Your task to perform on an android device: turn vacation reply on in the gmail app Image 0: 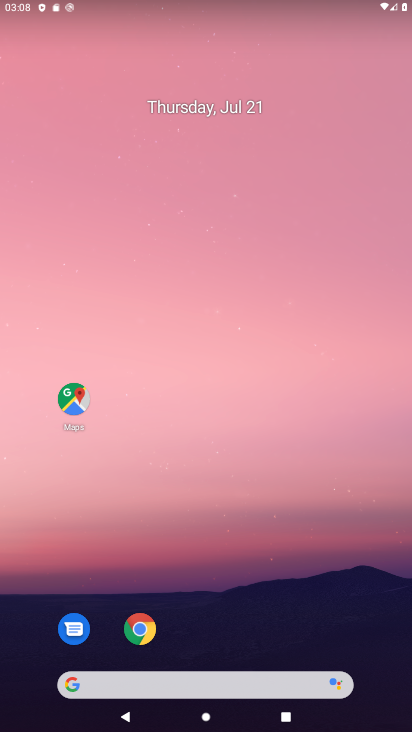
Step 0: press home button
Your task to perform on an android device: turn vacation reply on in the gmail app Image 1: 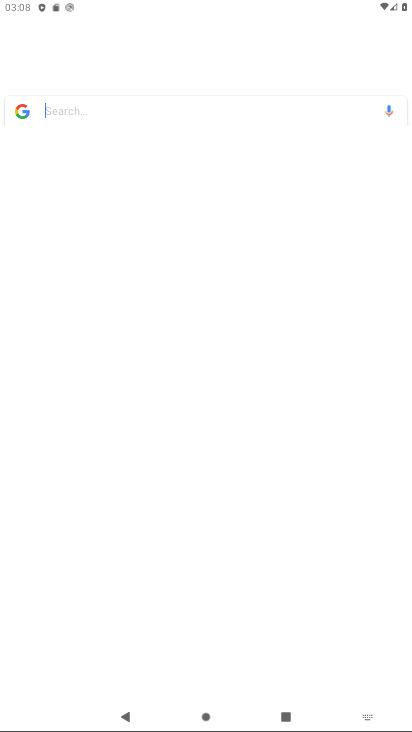
Step 1: drag from (302, 1) to (385, 43)
Your task to perform on an android device: turn vacation reply on in the gmail app Image 2: 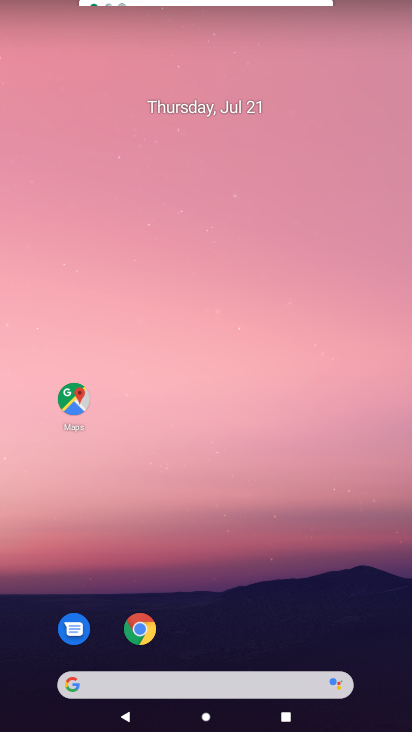
Step 2: drag from (217, 689) to (214, 74)
Your task to perform on an android device: turn vacation reply on in the gmail app Image 3: 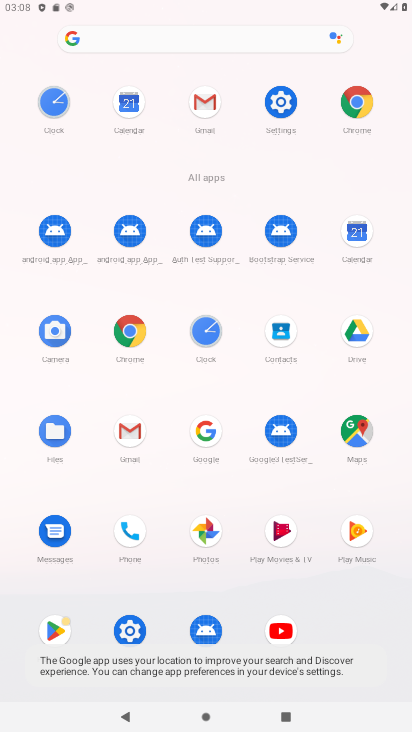
Step 3: click (131, 362)
Your task to perform on an android device: turn vacation reply on in the gmail app Image 4: 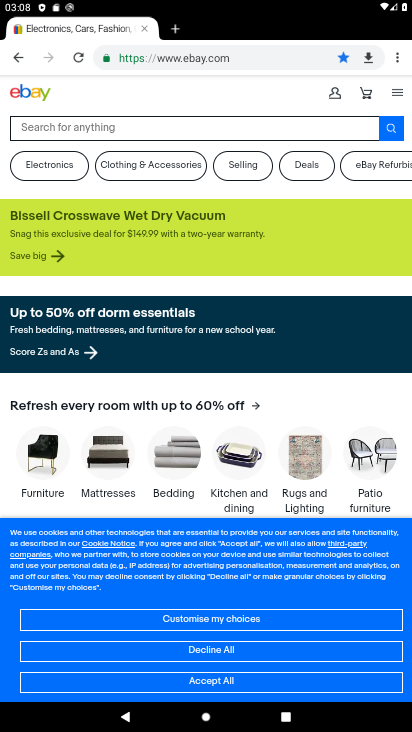
Step 4: click (400, 59)
Your task to perform on an android device: turn vacation reply on in the gmail app Image 5: 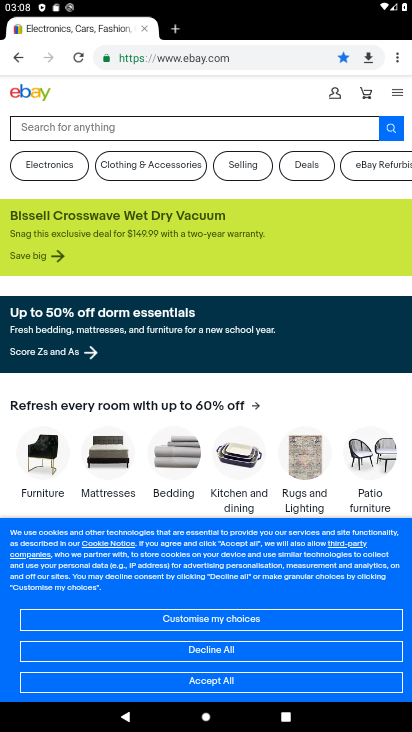
Step 5: press home button
Your task to perform on an android device: turn vacation reply on in the gmail app Image 6: 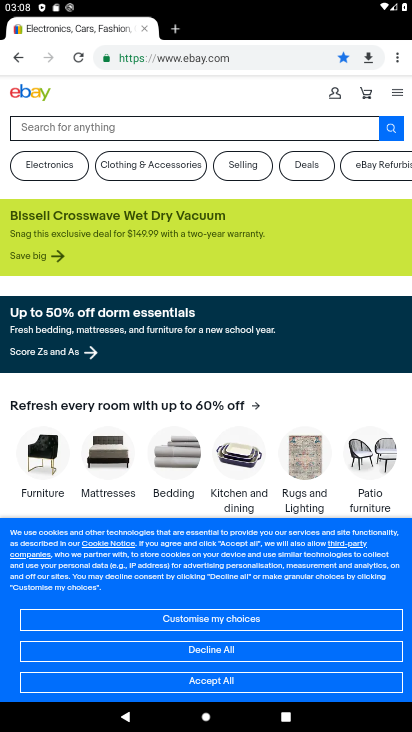
Step 6: drag from (317, 605) to (278, 30)
Your task to perform on an android device: turn vacation reply on in the gmail app Image 7: 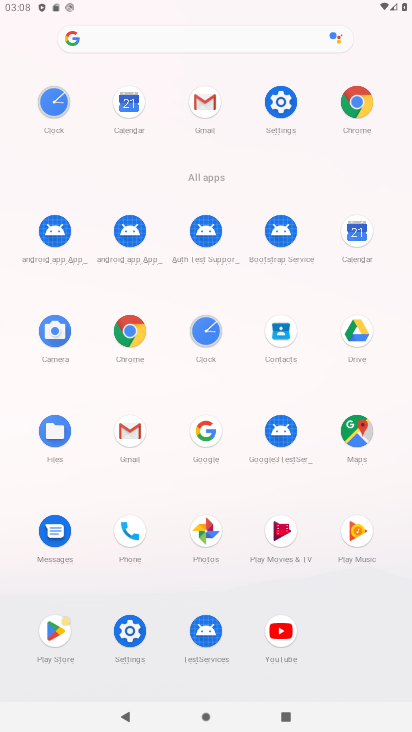
Step 7: click (200, 96)
Your task to perform on an android device: turn vacation reply on in the gmail app Image 8: 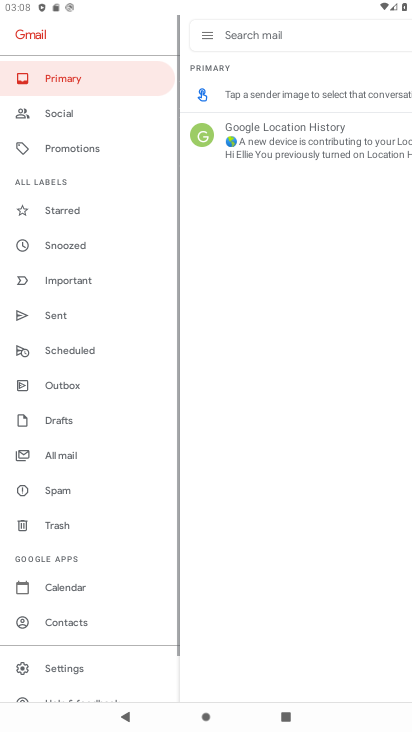
Step 8: click (76, 667)
Your task to perform on an android device: turn vacation reply on in the gmail app Image 9: 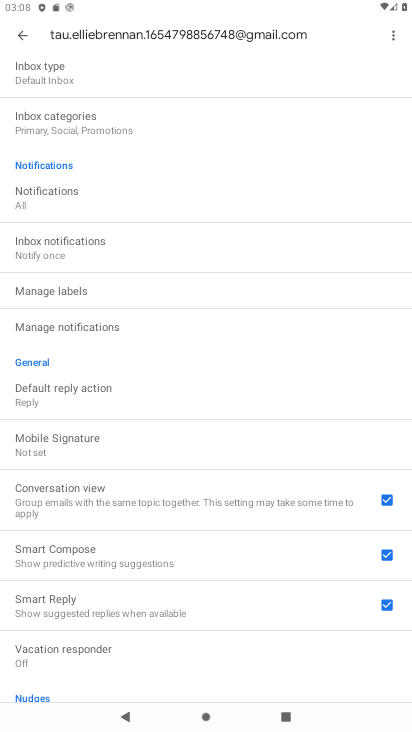
Step 9: click (102, 645)
Your task to perform on an android device: turn vacation reply on in the gmail app Image 10: 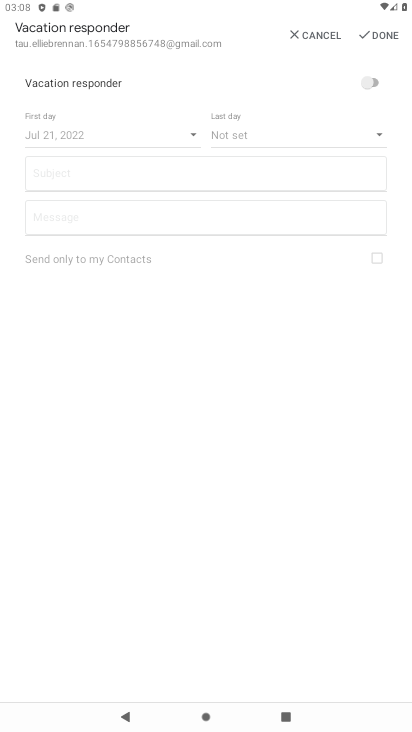
Step 10: click (358, 72)
Your task to perform on an android device: turn vacation reply on in the gmail app Image 11: 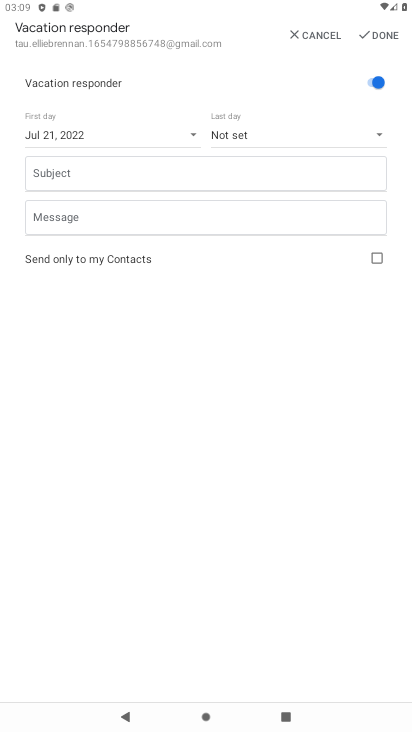
Step 11: click (138, 160)
Your task to perform on an android device: turn vacation reply on in the gmail app Image 12: 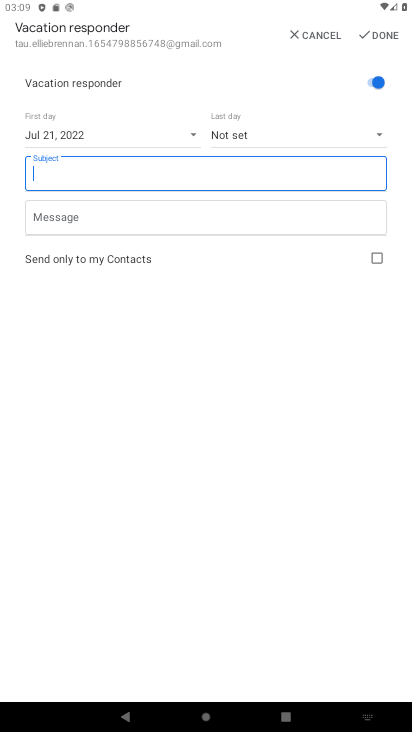
Step 12: type "BBC"
Your task to perform on an android device: turn vacation reply on in the gmail app Image 13: 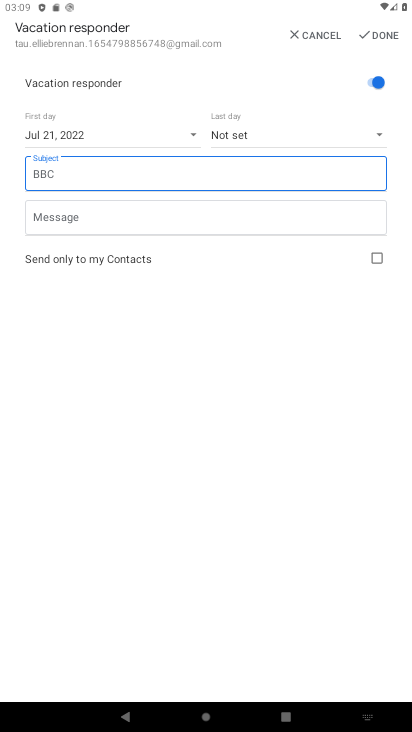
Step 13: click (44, 221)
Your task to perform on an android device: turn vacation reply on in the gmail app Image 14: 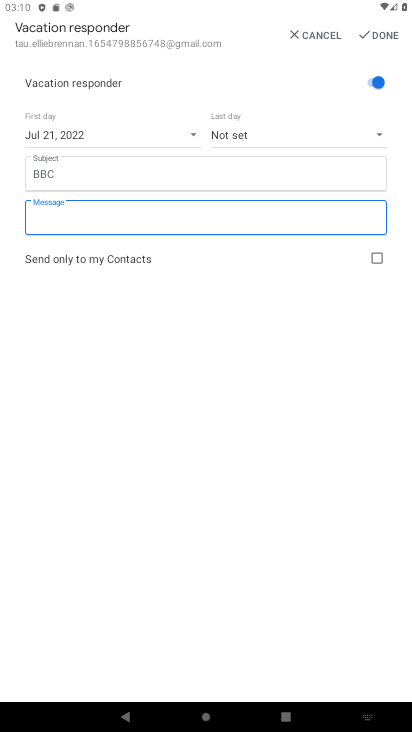
Step 14: type "BBC is the best news chhnel"
Your task to perform on an android device: turn vacation reply on in the gmail app Image 15: 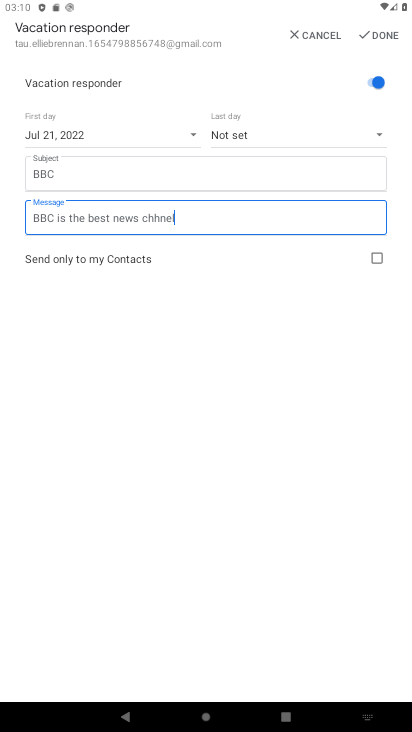
Step 15: click (390, 129)
Your task to perform on an android device: turn vacation reply on in the gmail app Image 16: 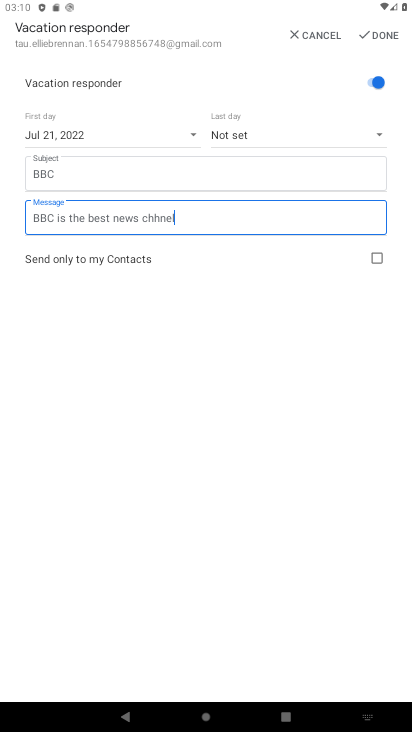
Step 16: click (371, 136)
Your task to perform on an android device: turn vacation reply on in the gmail app Image 17: 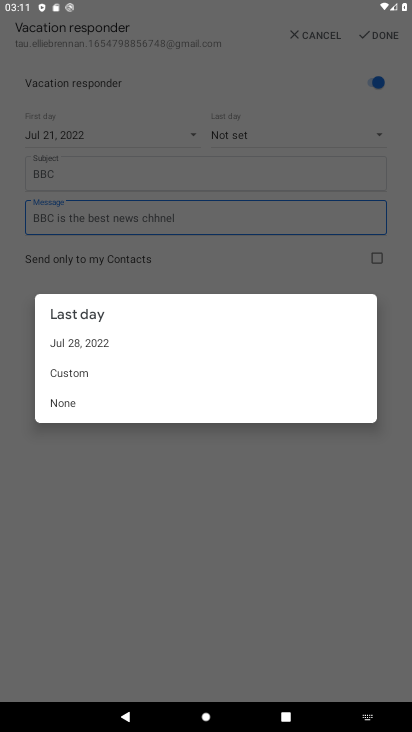
Step 17: click (79, 367)
Your task to perform on an android device: turn vacation reply on in the gmail app Image 18: 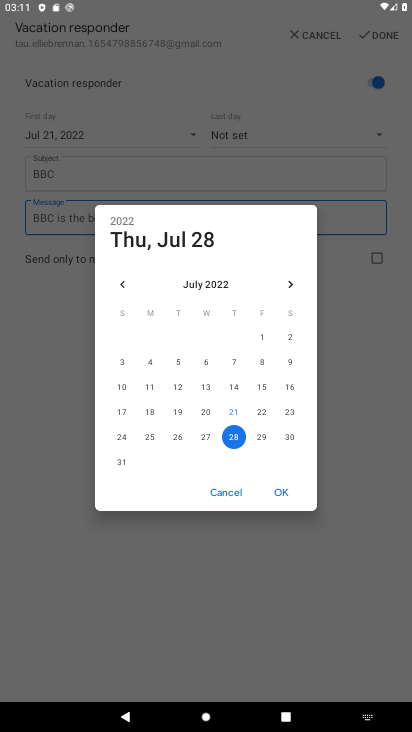
Step 18: drag from (287, 367) to (30, 354)
Your task to perform on an android device: turn vacation reply on in the gmail app Image 19: 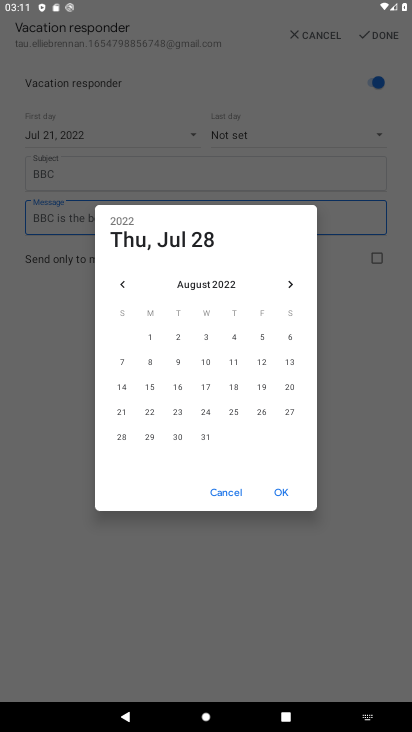
Step 19: drag from (273, 379) to (36, 351)
Your task to perform on an android device: turn vacation reply on in the gmail app Image 20: 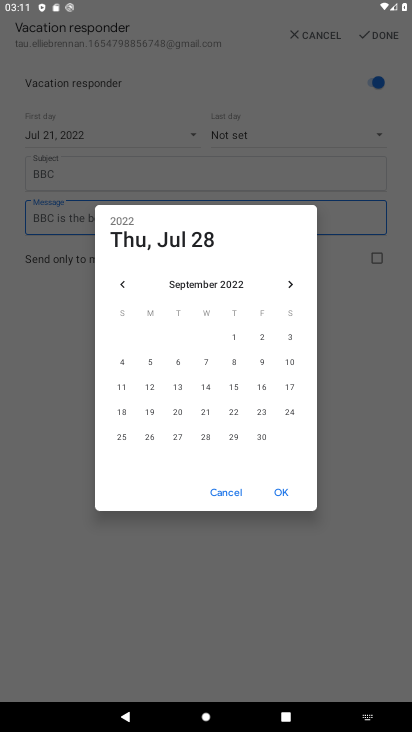
Step 20: drag from (251, 360) to (76, 360)
Your task to perform on an android device: turn vacation reply on in the gmail app Image 21: 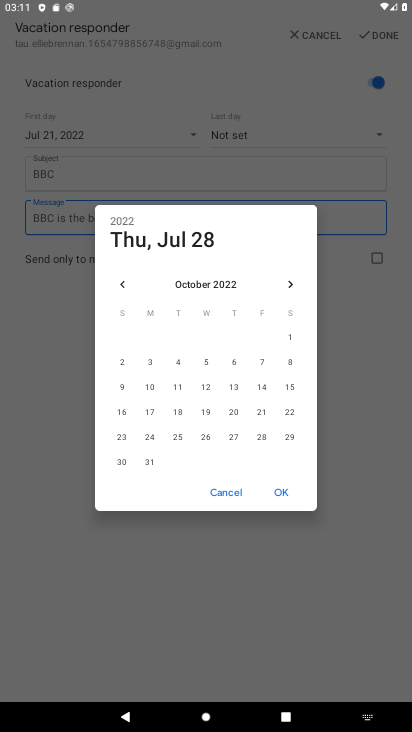
Step 21: click (148, 467)
Your task to perform on an android device: turn vacation reply on in the gmail app Image 22: 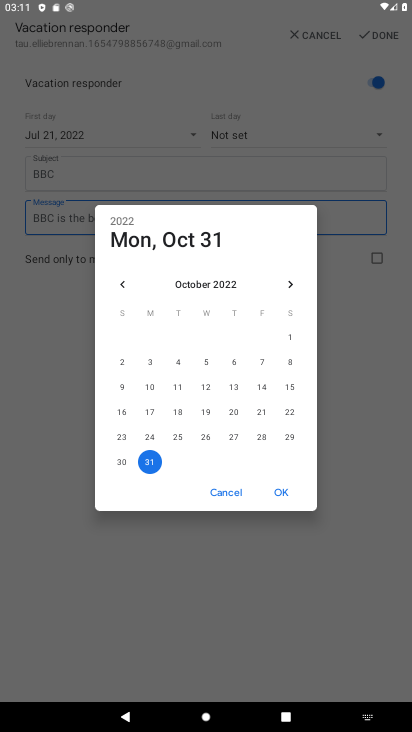
Step 22: click (279, 492)
Your task to perform on an android device: turn vacation reply on in the gmail app Image 23: 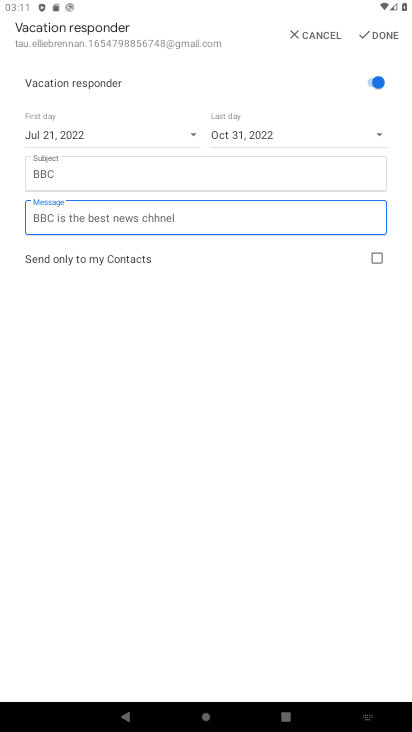
Step 23: click (374, 36)
Your task to perform on an android device: turn vacation reply on in the gmail app Image 24: 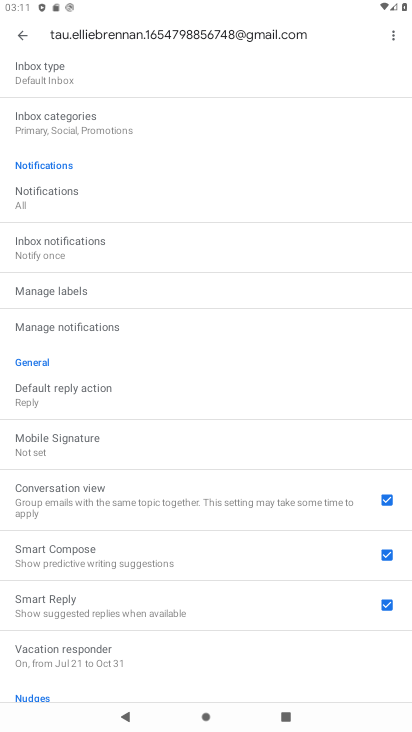
Step 24: task complete